Your task to perform on an android device: Open wifi settings Image 0: 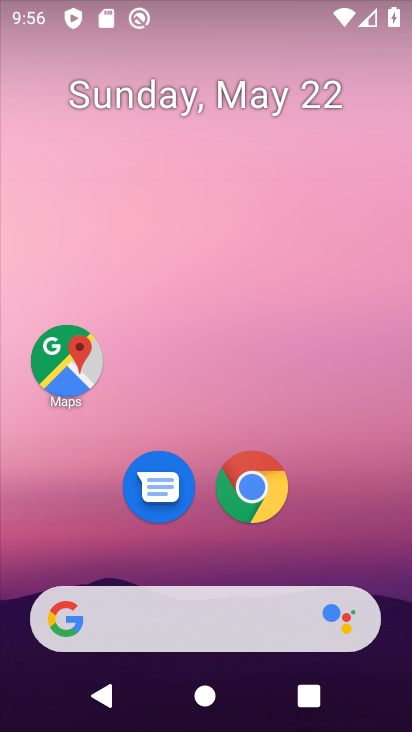
Step 0: drag from (388, 576) to (382, 125)
Your task to perform on an android device: Open wifi settings Image 1: 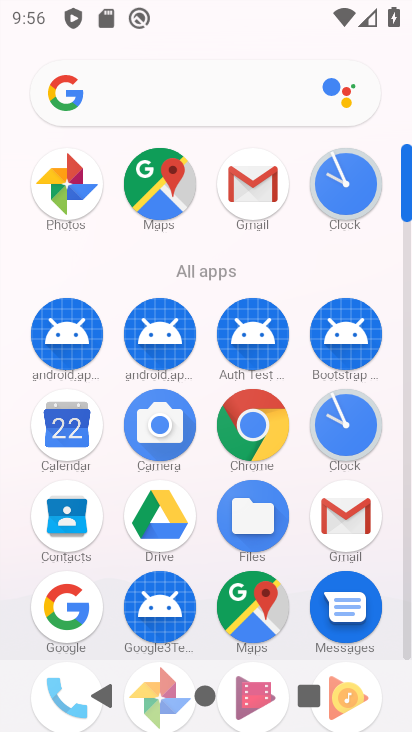
Step 1: click (410, 644)
Your task to perform on an android device: Open wifi settings Image 2: 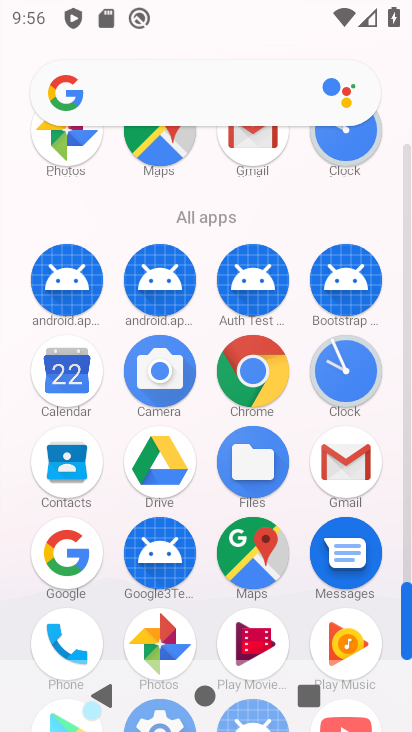
Step 2: click (406, 644)
Your task to perform on an android device: Open wifi settings Image 3: 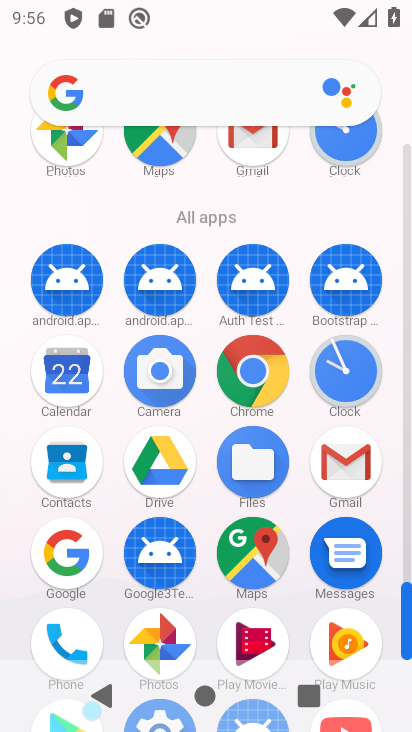
Step 3: drag from (396, 588) to (386, 367)
Your task to perform on an android device: Open wifi settings Image 4: 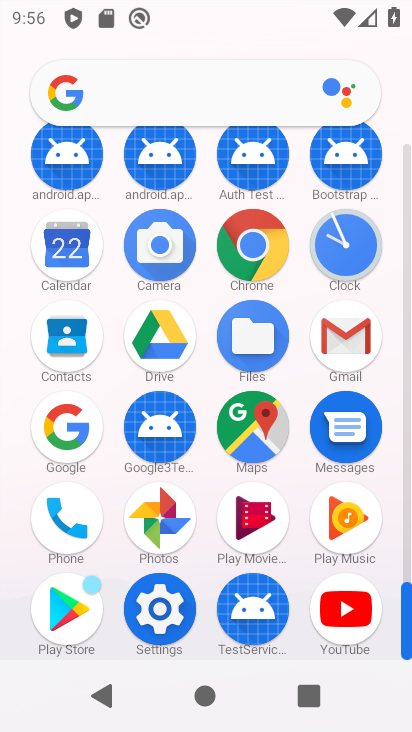
Step 4: click (167, 591)
Your task to perform on an android device: Open wifi settings Image 5: 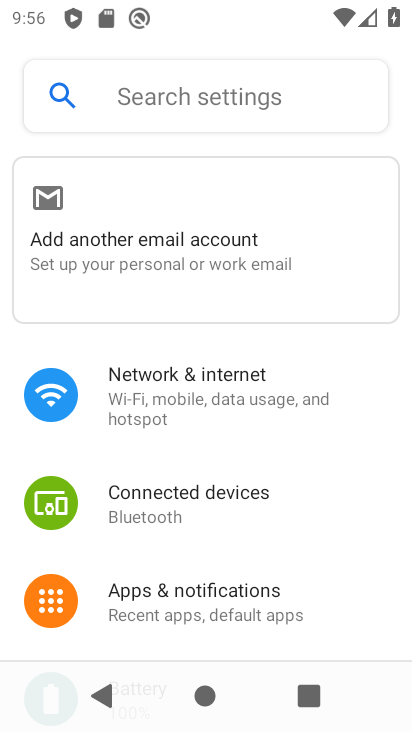
Step 5: click (195, 370)
Your task to perform on an android device: Open wifi settings Image 6: 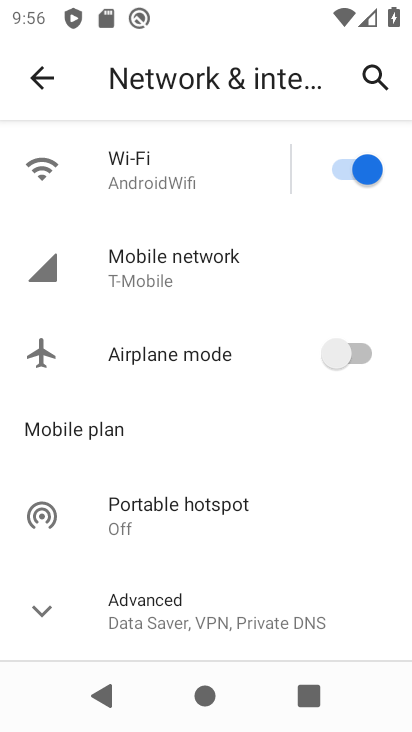
Step 6: click (184, 190)
Your task to perform on an android device: Open wifi settings Image 7: 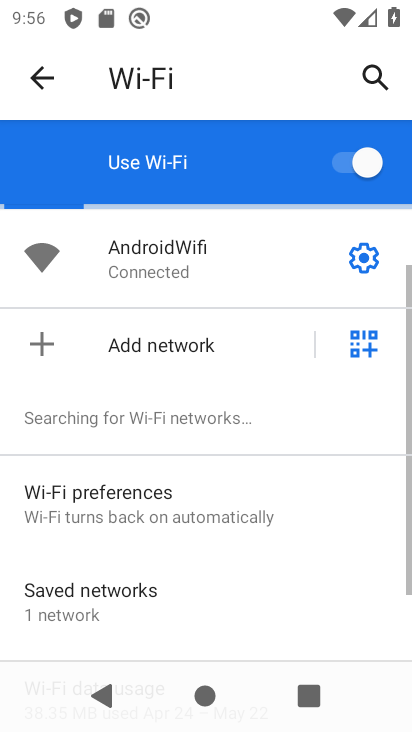
Step 7: task complete